Your task to perform on an android device: check battery use Image 0: 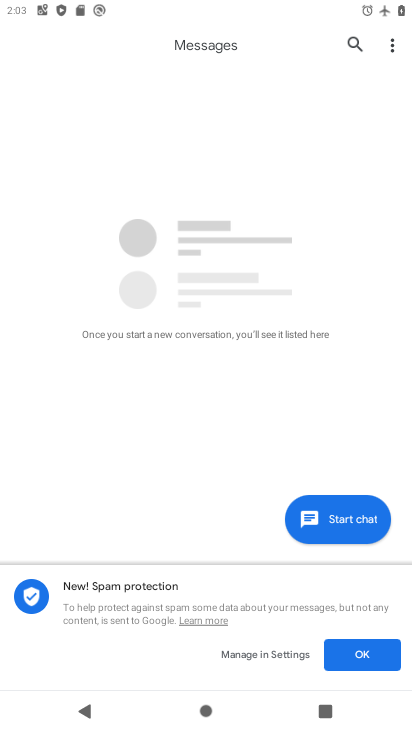
Step 0: press home button
Your task to perform on an android device: check battery use Image 1: 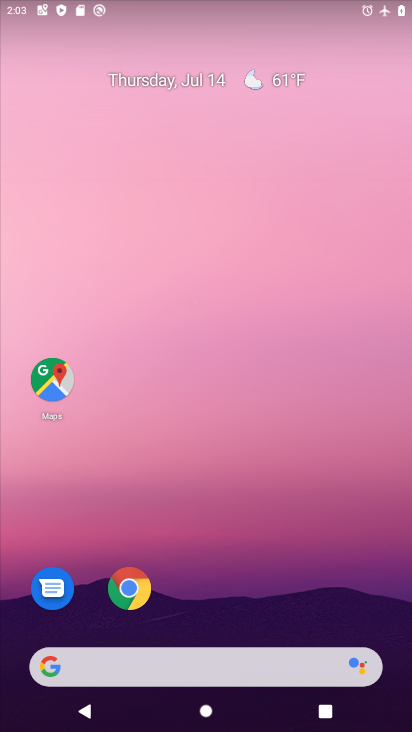
Step 1: drag from (207, 587) to (211, 192)
Your task to perform on an android device: check battery use Image 2: 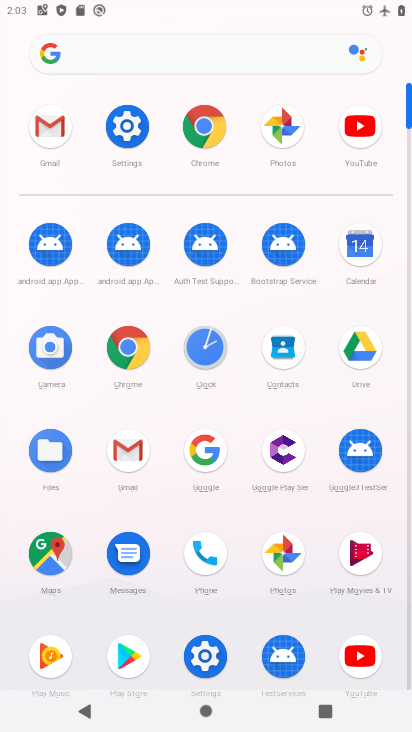
Step 2: click (133, 121)
Your task to perform on an android device: check battery use Image 3: 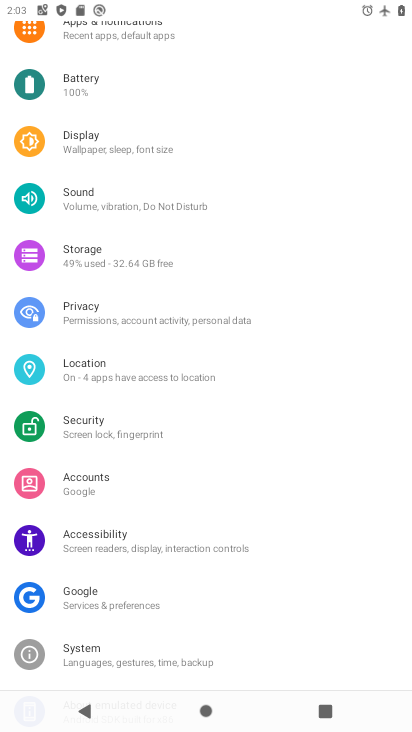
Step 3: click (105, 86)
Your task to perform on an android device: check battery use Image 4: 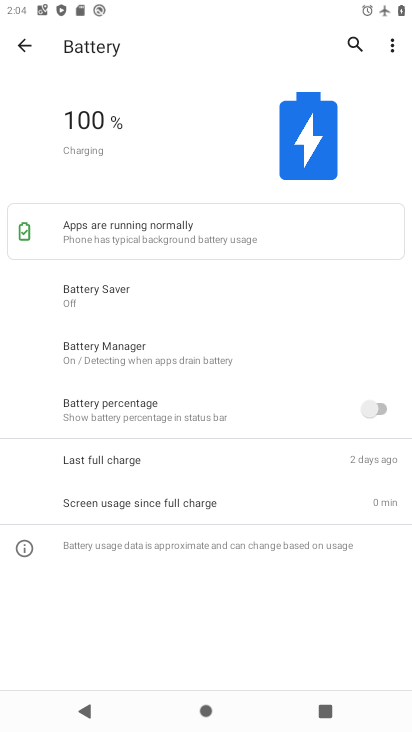
Step 4: task complete